Your task to perform on an android device: Go to wifi settings Image 0: 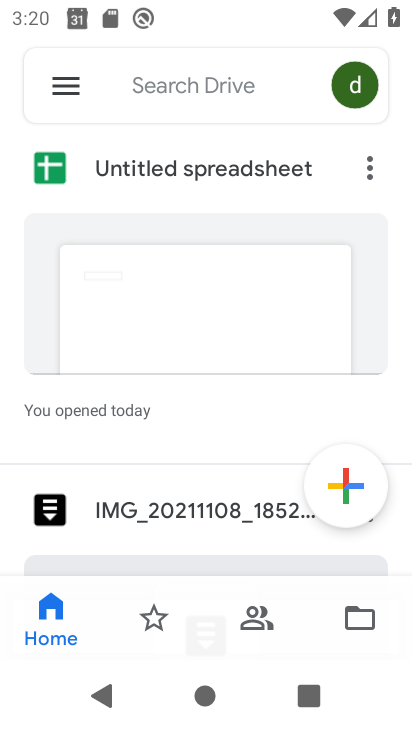
Step 0: press home button
Your task to perform on an android device: Go to wifi settings Image 1: 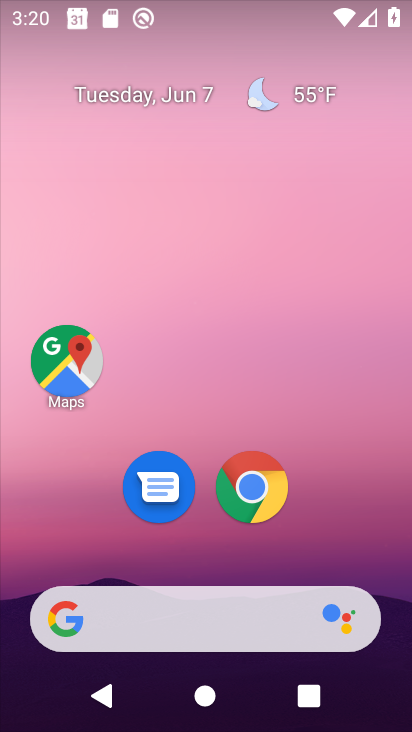
Step 1: drag from (305, 531) to (336, 158)
Your task to perform on an android device: Go to wifi settings Image 2: 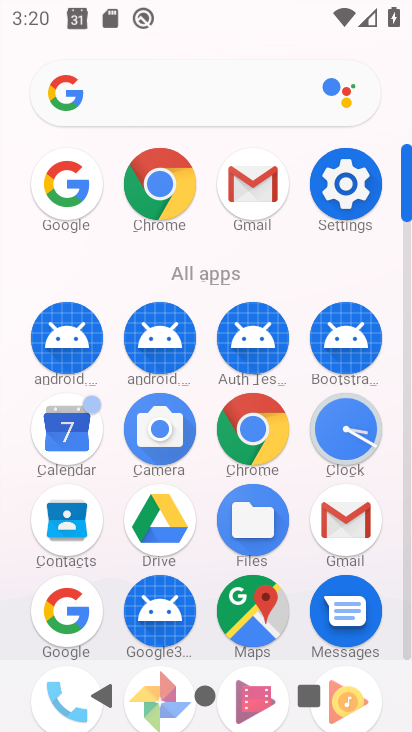
Step 2: click (350, 178)
Your task to perform on an android device: Go to wifi settings Image 3: 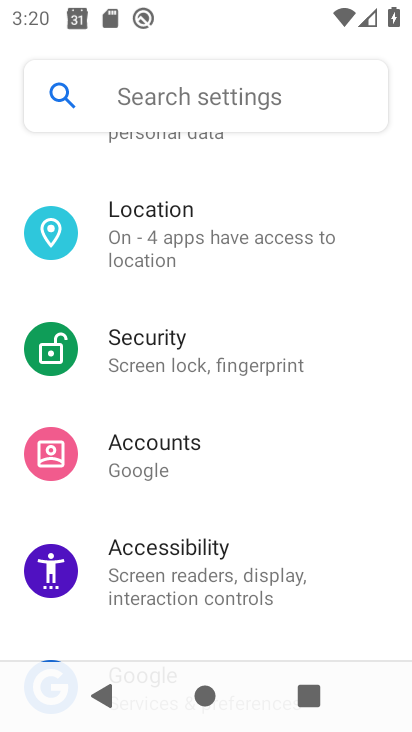
Step 3: drag from (192, 174) to (236, 622)
Your task to perform on an android device: Go to wifi settings Image 4: 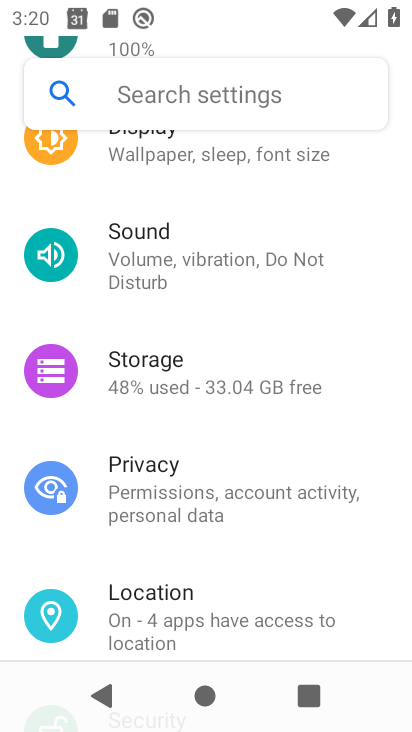
Step 4: drag from (166, 188) to (163, 643)
Your task to perform on an android device: Go to wifi settings Image 5: 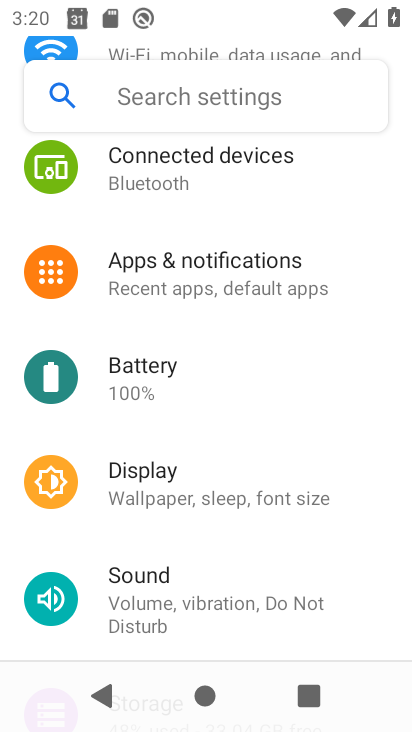
Step 5: drag from (126, 162) to (194, 602)
Your task to perform on an android device: Go to wifi settings Image 6: 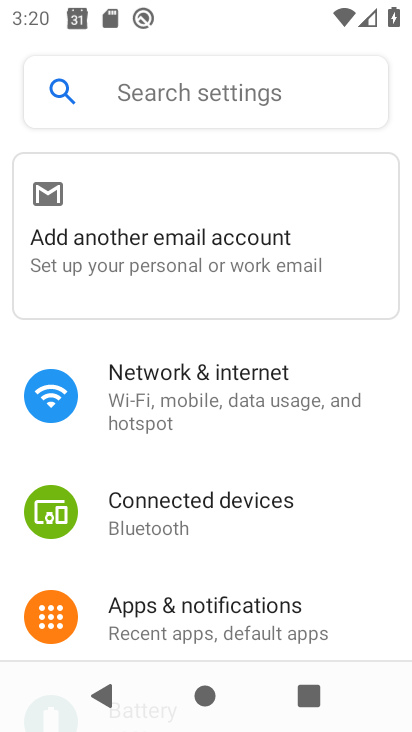
Step 6: click (238, 386)
Your task to perform on an android device: Go to wifi settings Image 7: 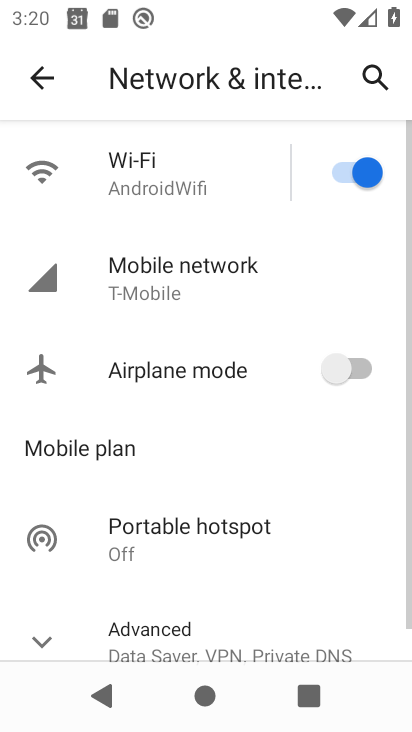
Step 7: click (184, 172)
Your task to perform on an android device: Go to wifi settings Image 8: 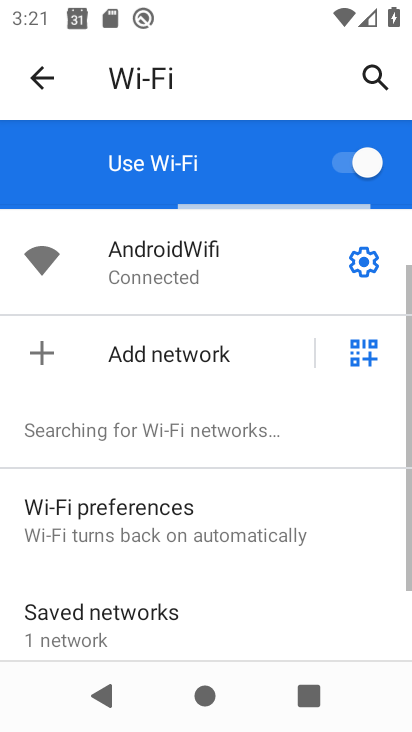
Step 8: click (205, 261)
Your task to perform on an android device: Go to wifi settings Image 9: 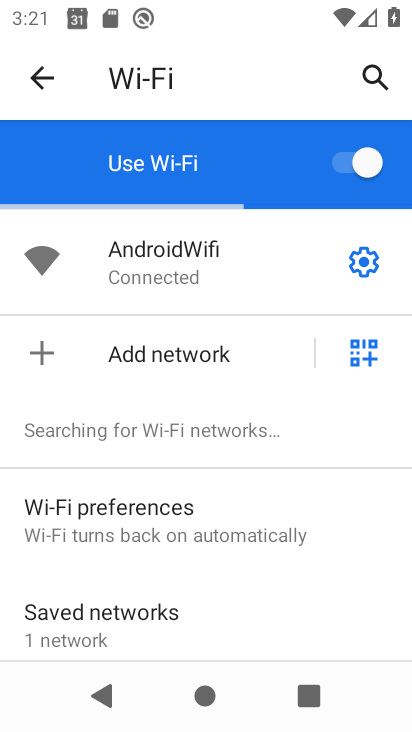
Step 9: click (189, 271)
Your task to perform on an android device: Go to wifi settings Image 10: 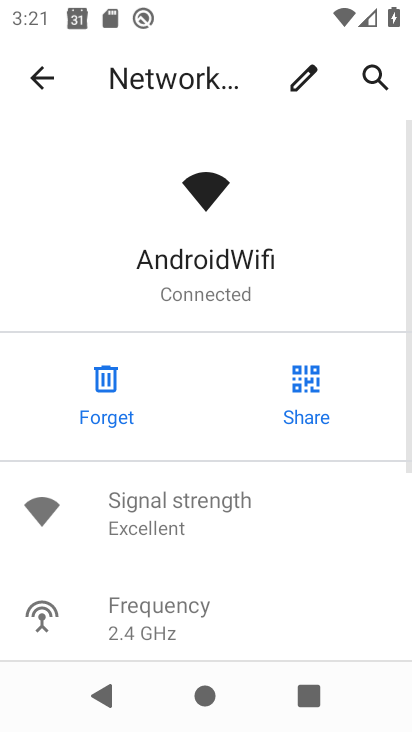
Step 10: task complete